Your task to perform on an android device: Open maps Image 0: 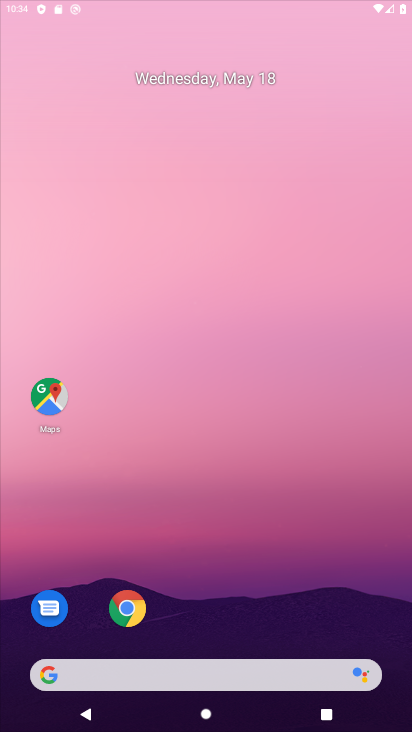
Step 0: press home button
Your task to perform on an android device: Open maps Image 1: 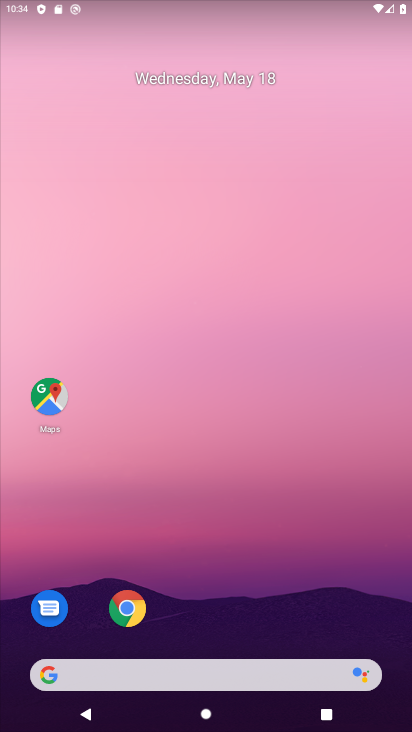
Step 1: click (51, 390)
Your task to perform on an android device: Open maps Image 2: 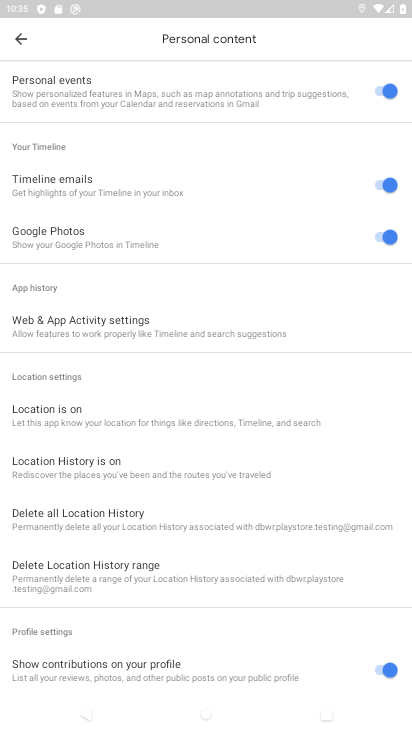
Step 2: task complete